Your task to perform on an android device: see sites visited before in the chrome app Image 0: 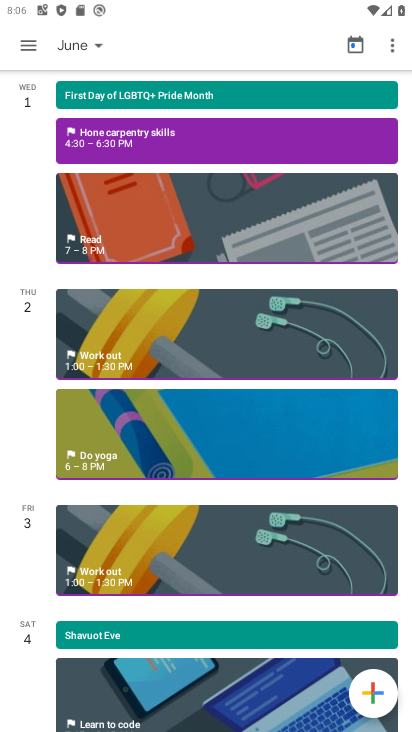
Step 0: press home button
Your task to perform on an android device: see sites visited before in the chrome app Image 1: 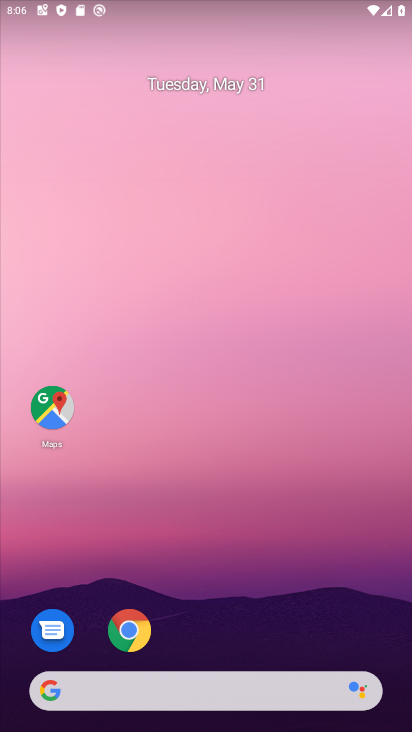
Step 1: click (127, 616)
Your task to perform on an android device: see sites visited before in the chrome app Image 2: 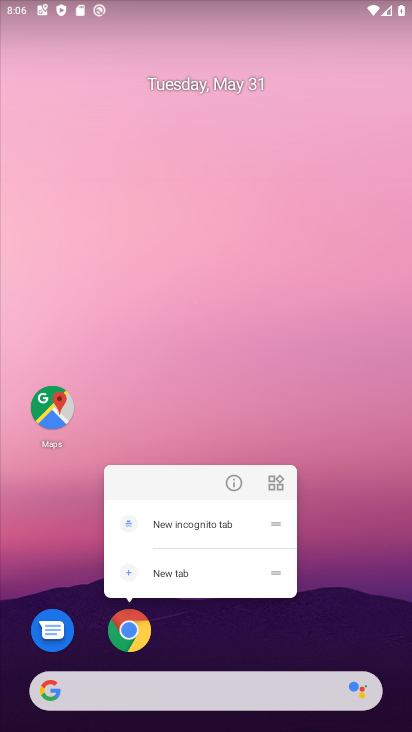
Step 2: click (127, 636)
Your task to perform on an android device: see sites visited before in the chrome app Image 3: 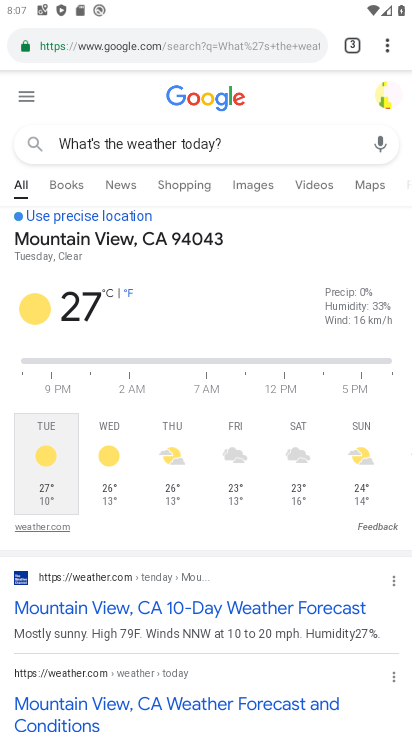
Step 3: click (385, 35)
Your task to perform on an android device: see sites visited before in the chrome app Image 4: 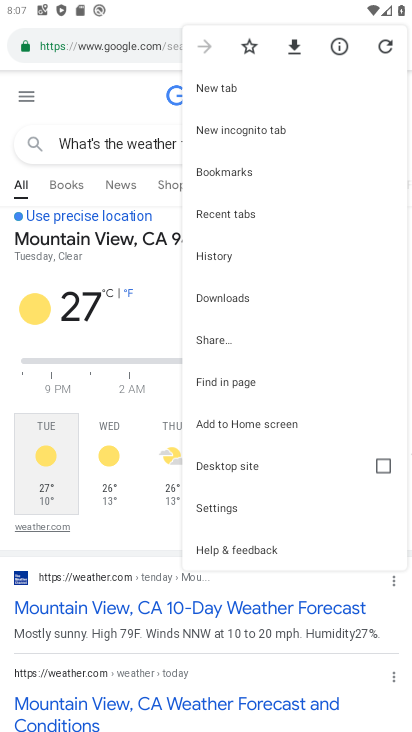
Step 4: click (203, 258)
Your task to perform on an android device: see sites visited before in the chrome app Image 5: 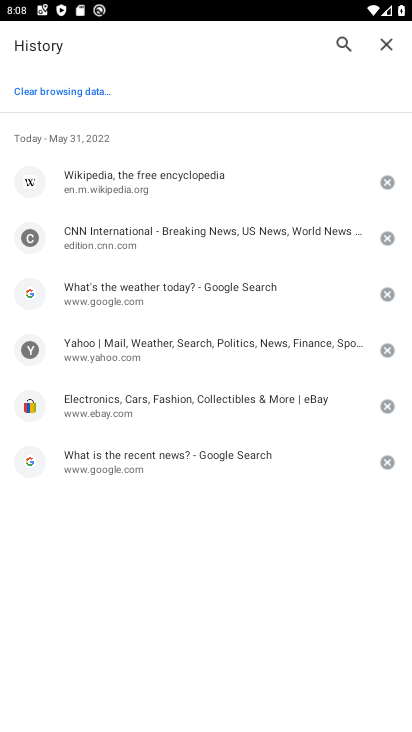
Step 5: task complete